Your task to perform on an android device: open the mobile data screen to see how much data has been used Image 0: 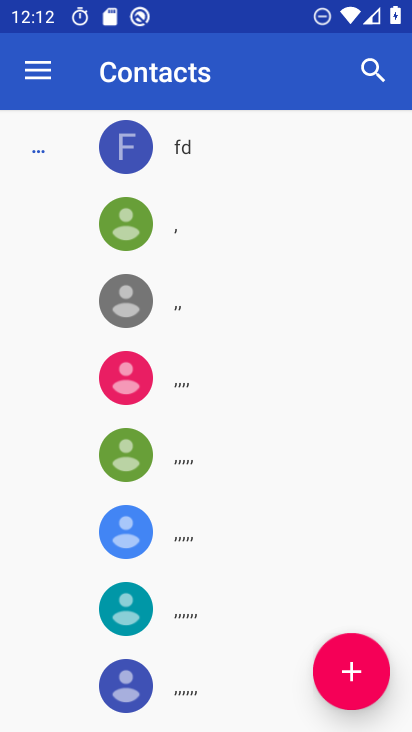
Step 0: press back button
Your task to perform on an android device: open the mobile data screen to see how much data has been used Image 1: 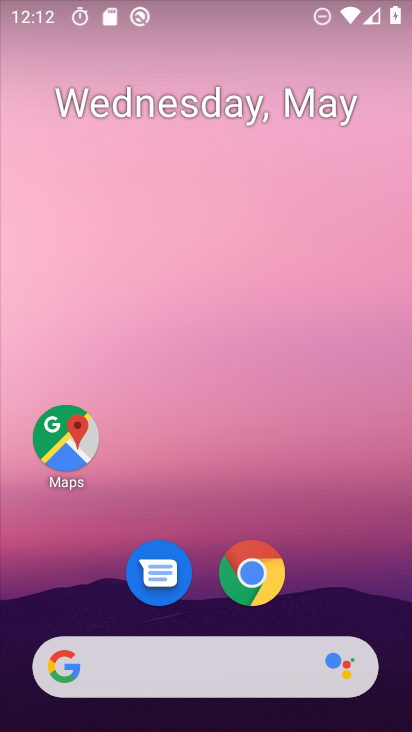
Step 1: drag from (359, 578) to (291, 58)
Your task to perform on an android device: open the mobile data screen to see how much data has been used Image 2: 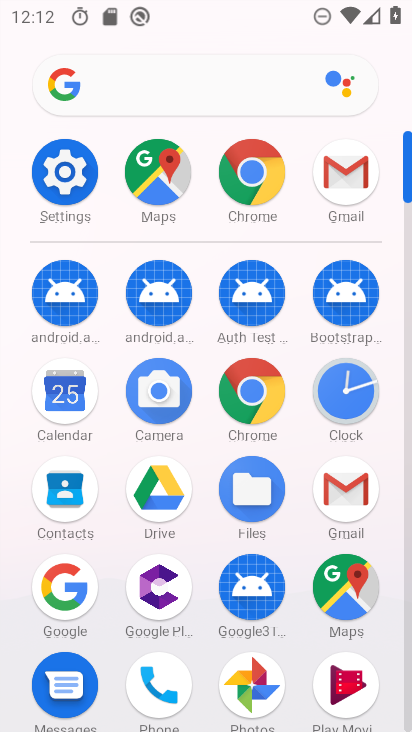
Step 2: drag from (19, 555) to (19, 232)
Your task to perform on an android device: open the mobile data screen to see how much data has been used Image 3: 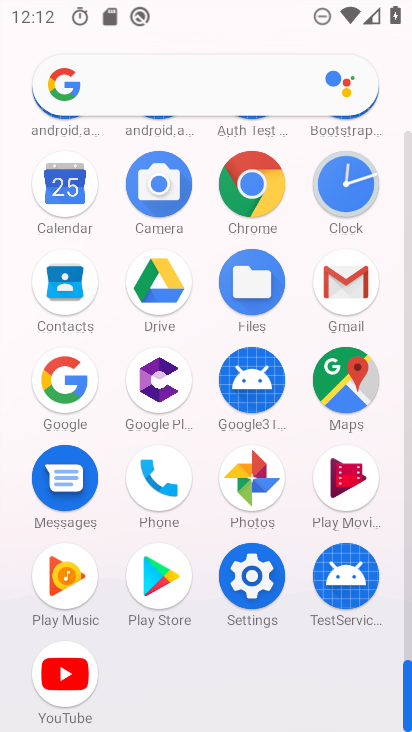
Step 3: click (253, 574)
Your task to perform on an android device: open the mobile data screen to see how much data has been used Image 4: 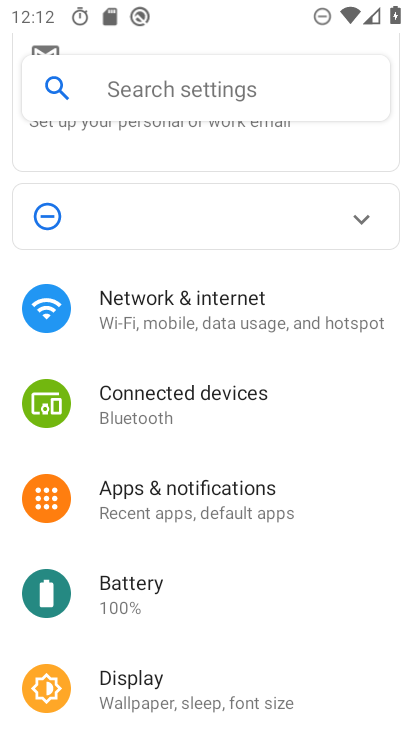
Step 4: click (219, 306)
Your task to perform on an android device: open the mobile data screen to see how much data has been used Image 5: 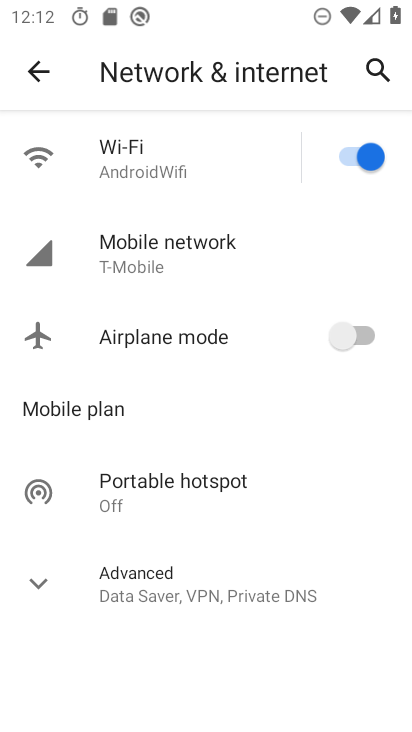
Step 5: click (178, 264)
Your task to perform on an android device: open the mobile data screen to see how much data has been used Image 6: 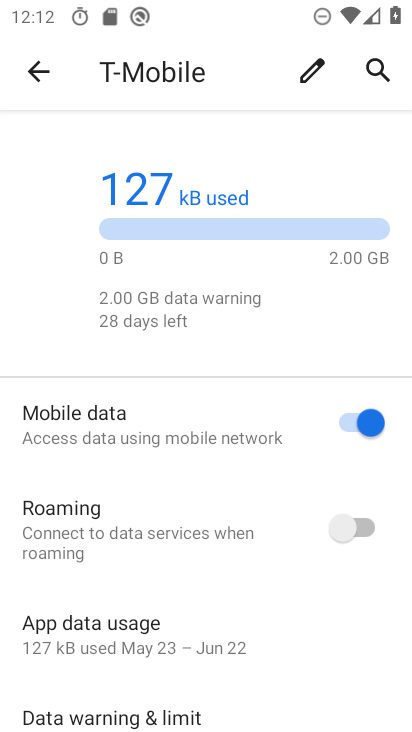
Step 6: task complete